Your task to perform on an android device: Open Amazon Image 0: 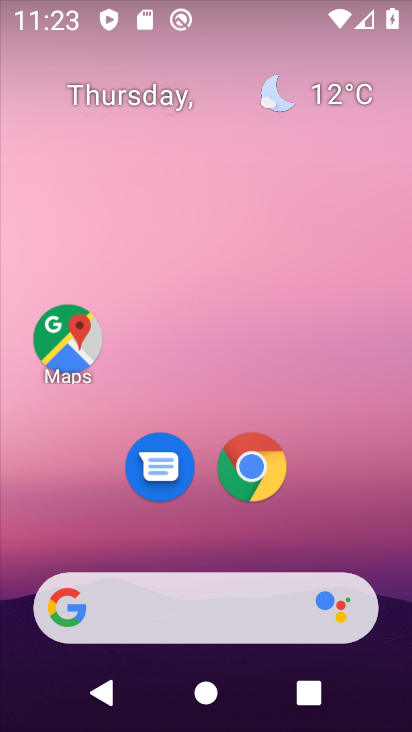
Step 0: drag from (337, 479) to (358, 2)
Your task to perform on an android device: Open Amazon Image 1: 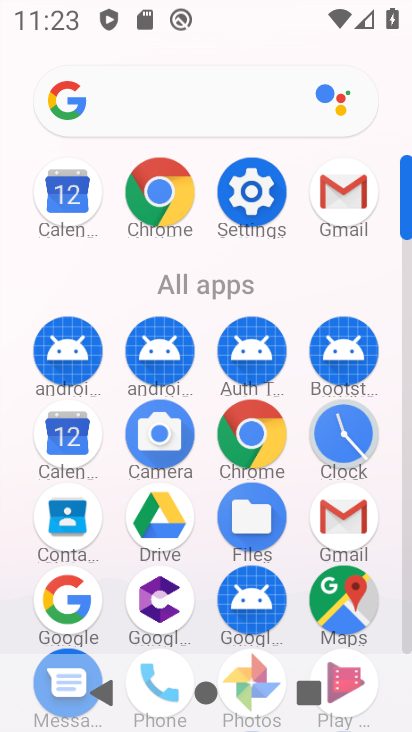
Step 1: click (155, 207)
Your task to perform on an android device: Open Amazon Image 2: 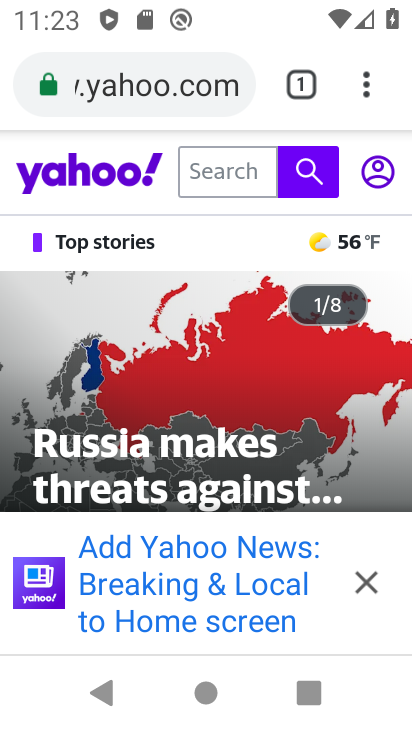
Step 2: click (173, 84)
Your task to perform on an android device: Open Amazon Image 3: 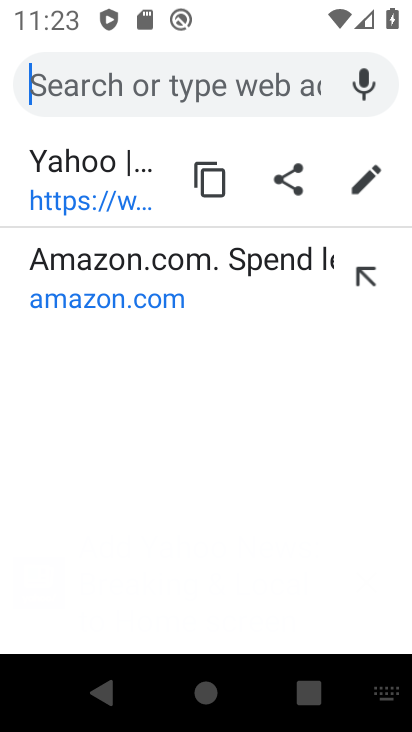
Step 3: click (140, 293)
Your task to perform on an android device: Open Amazon Image 4: 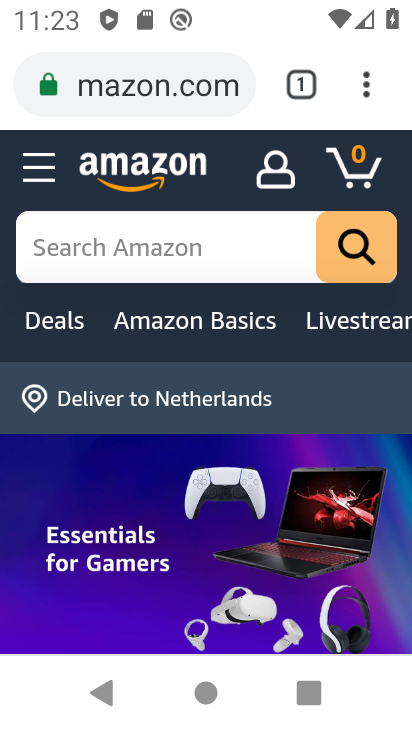
Step 4: task complete